Your task to perform on an android device: Go to accessibility settings Image 0: 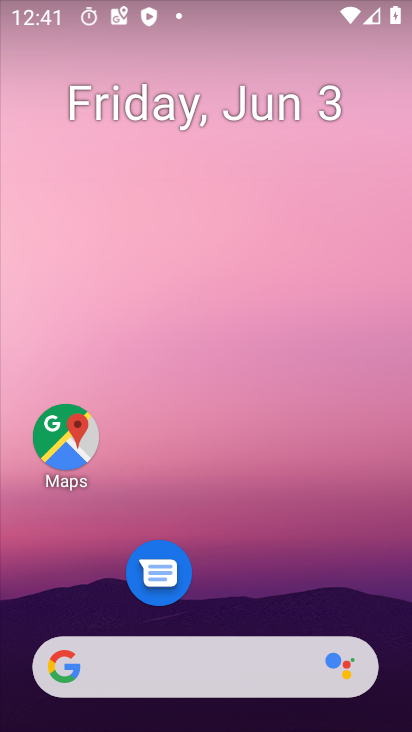
Step 0: drag from (335, 674) to (374, 86)
Your task to perform on an android device: Go to accessibility settings Image 1: 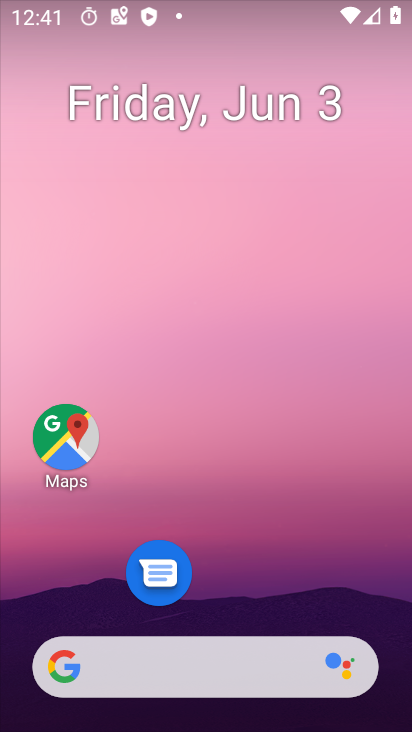
Step 1: drag from (254, 616) to (281, 50)
Your task to perform on an android device: Go to accessibility settings Image 2: 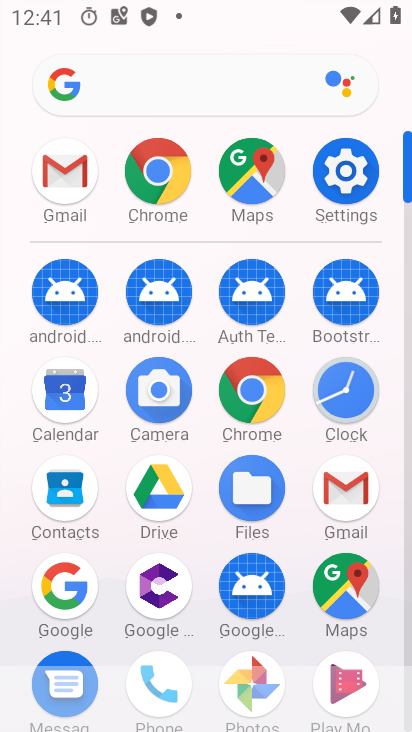
Step 2: click (333, 166)
Your task to perform on an android device: Go to accessibility settings Image 3: 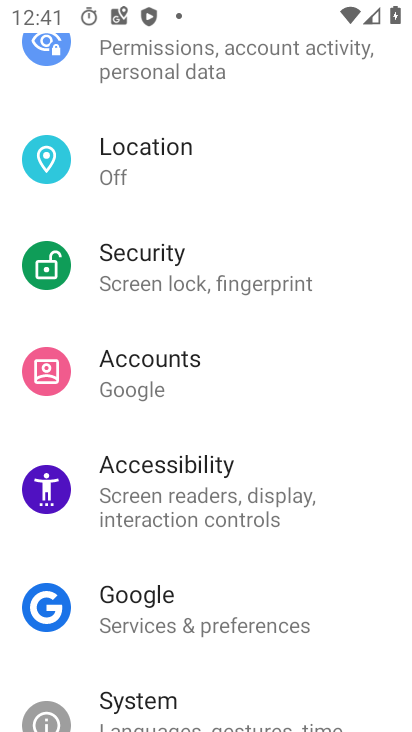
Step 3: drag from (235, 678) to (227, 492)
Your task to perform on an android device: Go to accessibility settings Image 4: 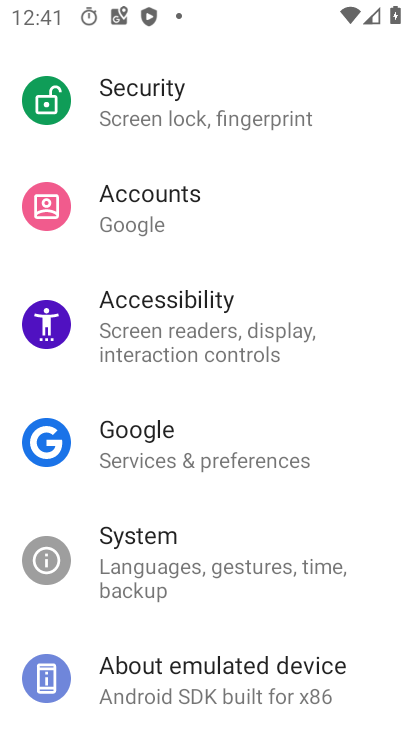
Step 4: click (226, 350)
Your task to perform on an android device: Go to accessibility settings Image 5: 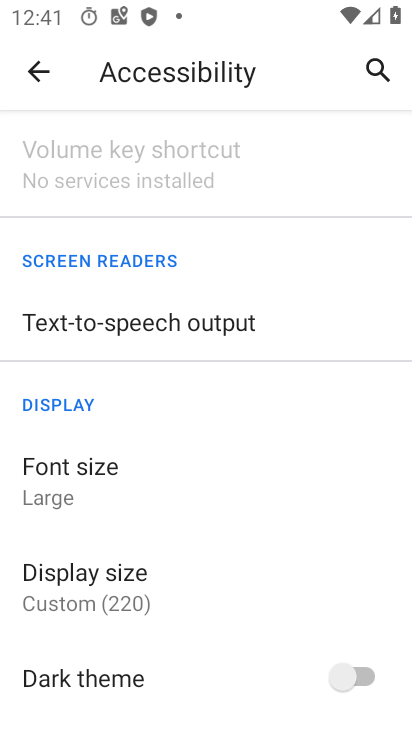
Step 5: task complete